Your task to perform on an android device: turn off sleep mode Image 0: 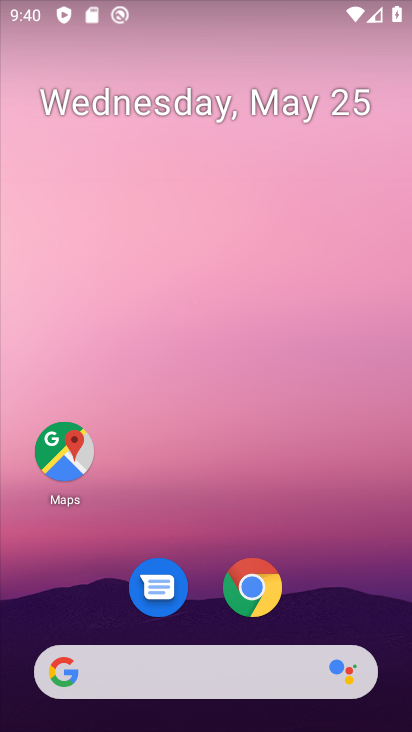
Step 0: drag from (215, 624) to (231, 124)
Your task to perform on an android device: turn off sleep mode Image 1: 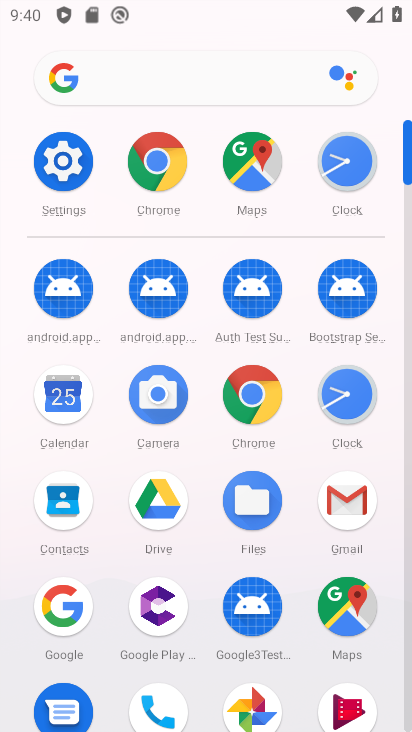
Step 1: click (70, 170)
Your task to perform on an android device: turn off sleep mode Image 2: 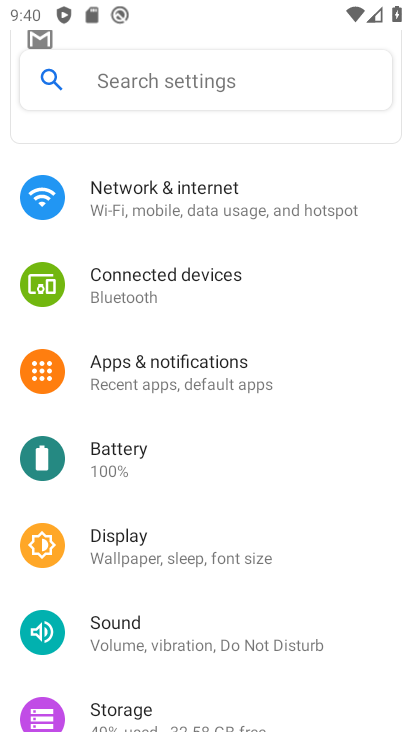
Step 2: click (262, 86)
Your task to perform on an android device: turn off sleep mode Image 3: 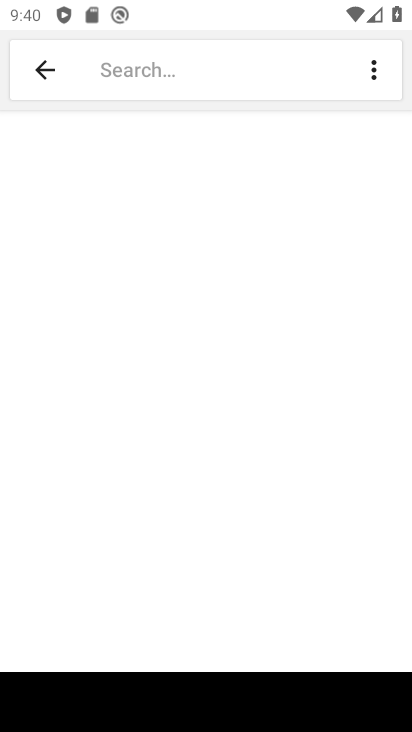
Step 3: type "sleep mode"
Your task to perform on an android device: turn off sleep mode Image 4: 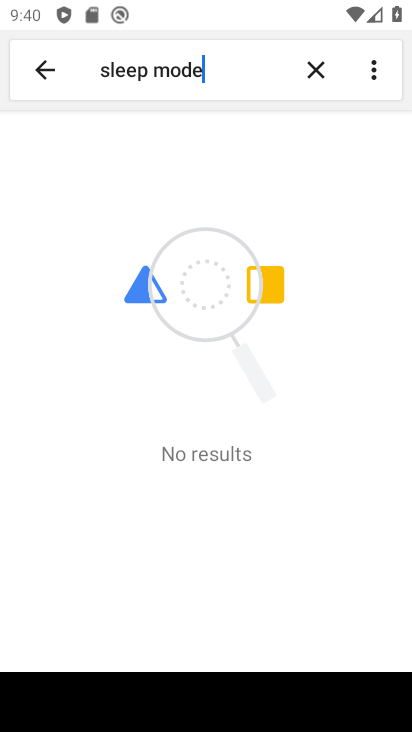
Step 4: task complete